Your task to perform on an android device: Open Google Chrome Image 0: 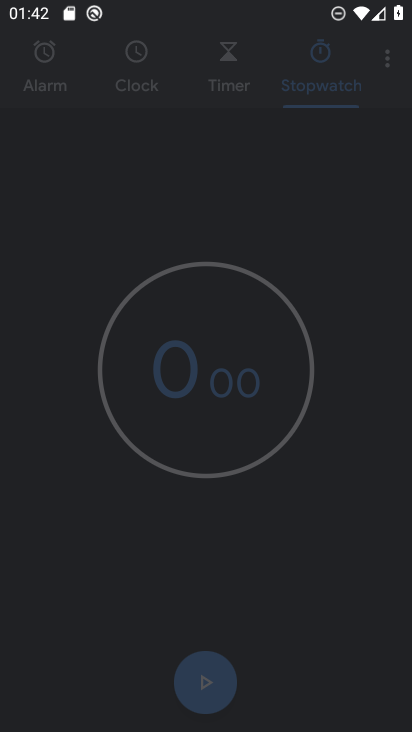
Step 0: drag from (238, 625) to (273, 49)
Your task to perform on an android device: Open Google Chrome Image 1: 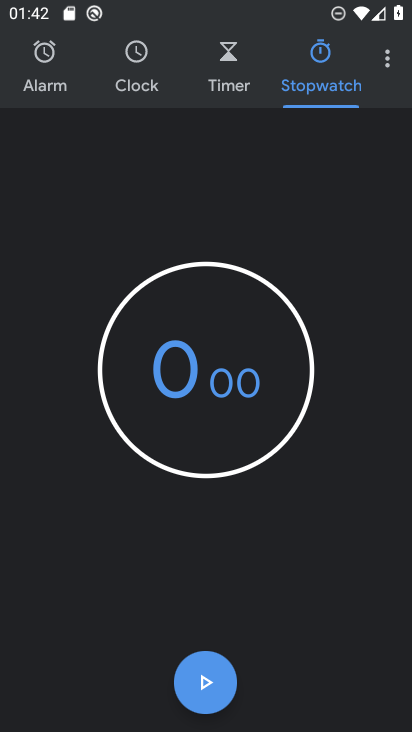
Step 1: press home button
Your task to perform on an android device: Open Google Chrome Image 2: 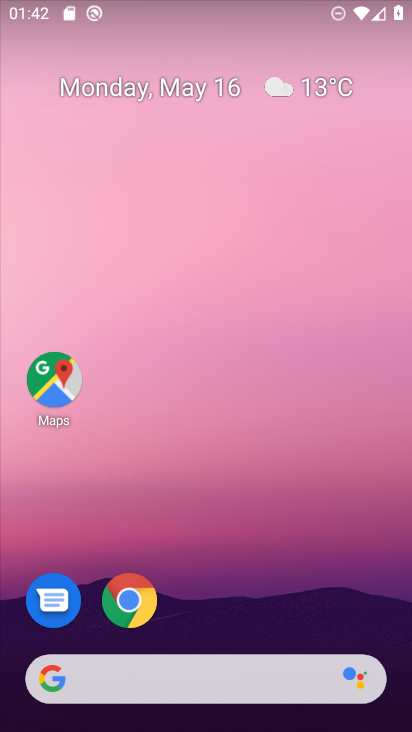
Step 2: click (124, 594)
Your task to perform on an android device: Open Google Chrome Image 3: 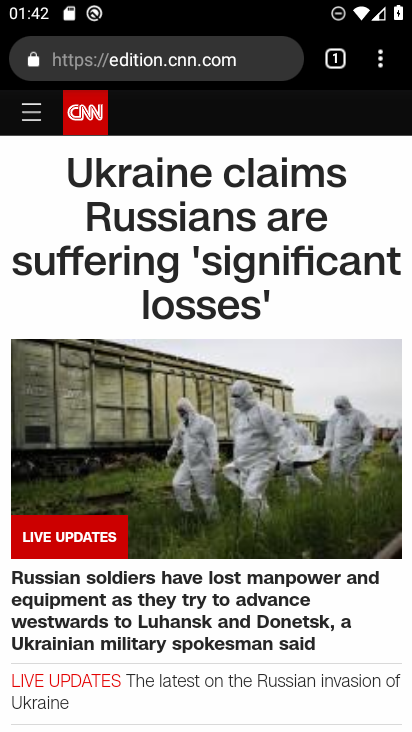
Step 3: click (381, 63)
Your task to perform on an android device: Open Google Chrome Image 4: 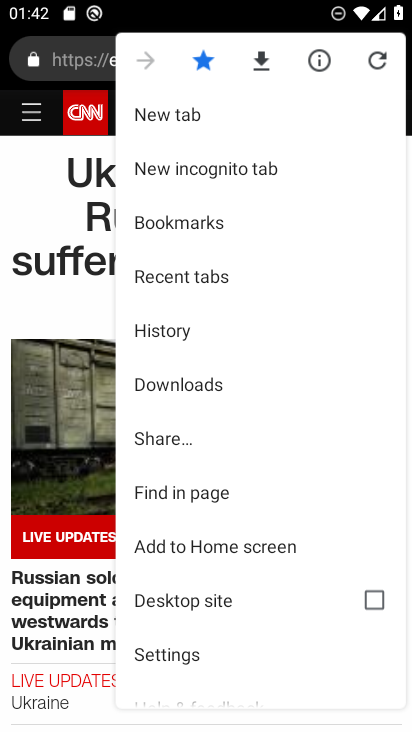
Step 4: click (51, 413)
Your task to perform on an android device: Open Google Chrome Image 5: 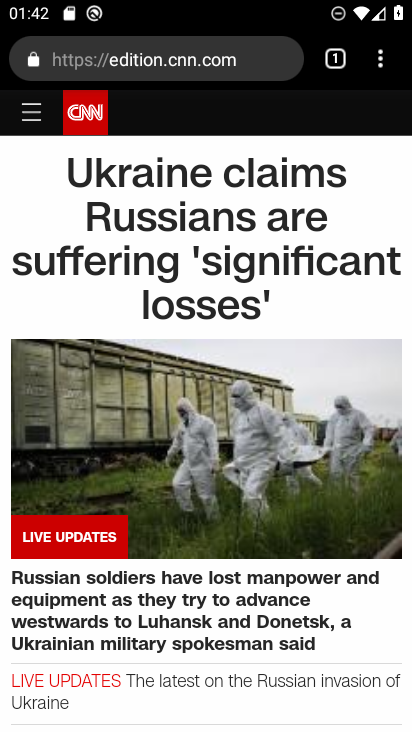
Step 5: click (340, 57)
Your task to perform on an android device: Open Google Chrome Image 6: 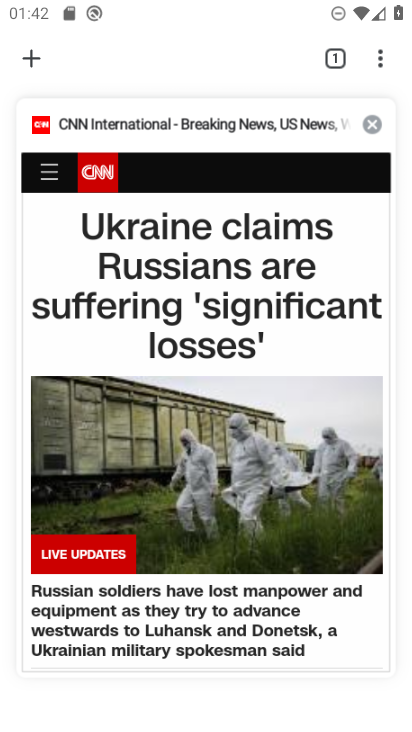
Step 6: click (370, 127)
Your task to perform on an android device: Open Google Chrome Image 7: 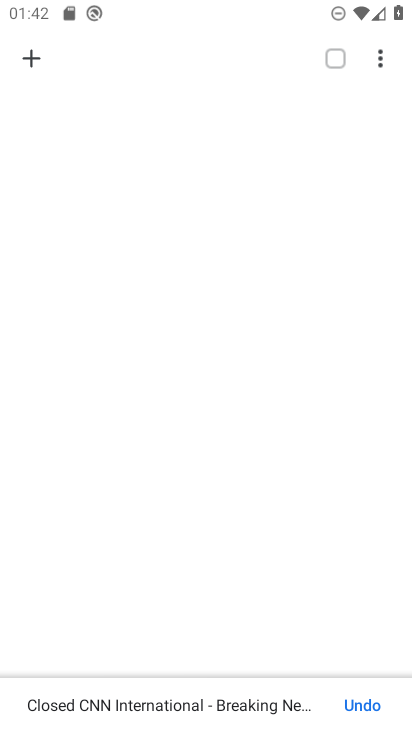
Step 7: click (37, 54)
Your task to perform on an android device: Open Google Chrome Image 8: 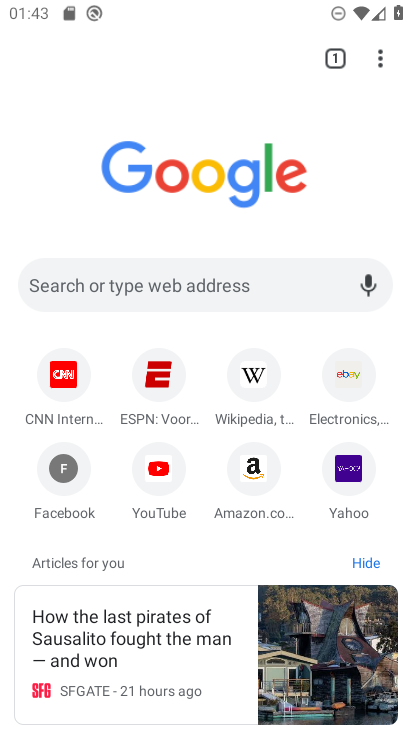
Step 8: click (142, 280)
Your task to perform on an android device: Open Google Chrome Image 9: 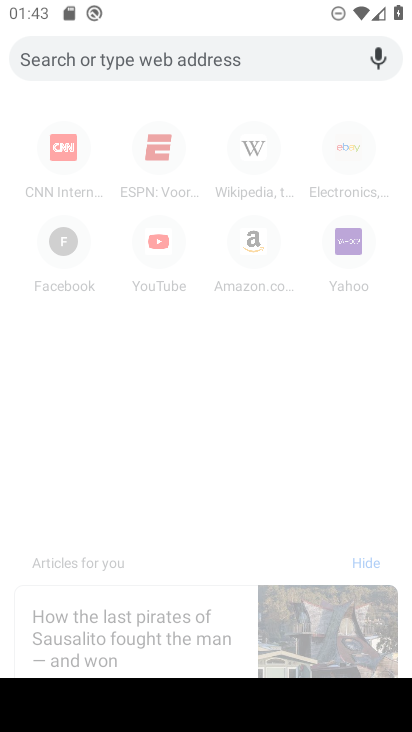
Step 9: task complete